Your task to perform on an android device: turn on translation in the chrome app Image 0: 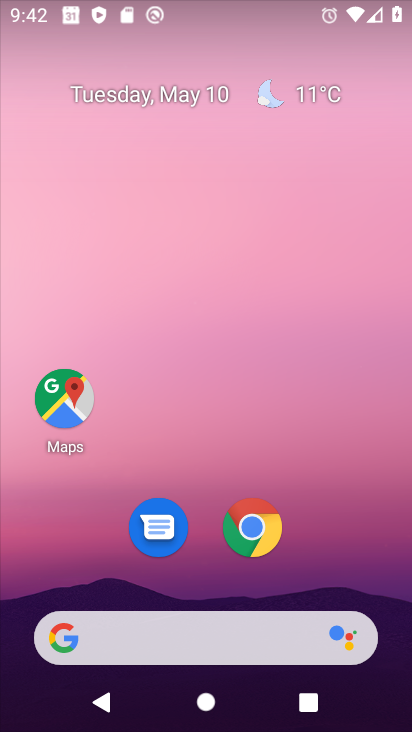
Step 0: click (270, 523)
Your task to perform on an android device: turn on translation in the chrome app Image 1: 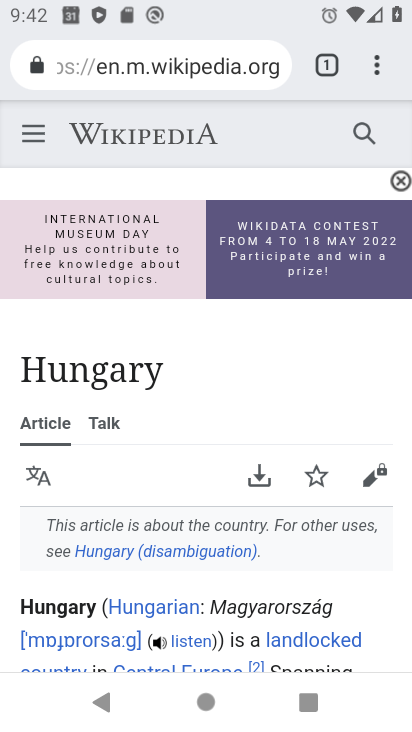
Step 1: click (387, 67)
Your task to perform on an android device: turn on translation in the chrome app Image 2: 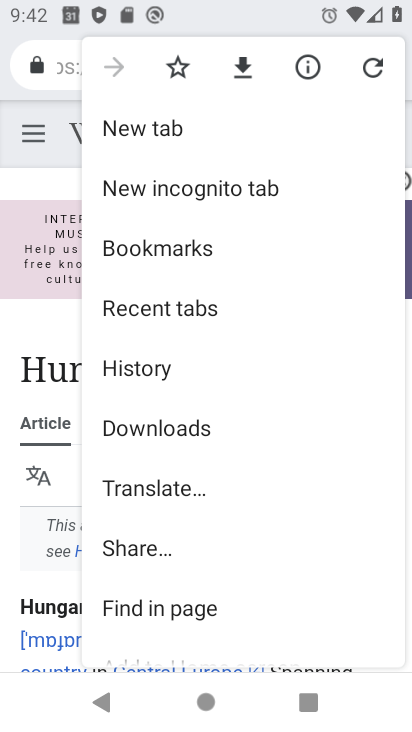
Step 2: drag from (282, 601) to (272, 271)
Your task to perform on an android device: turn on translation in the chrome app Image 3: 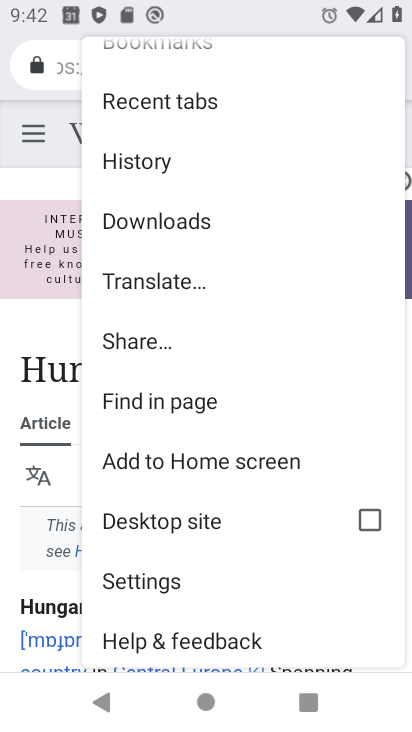
Step 3: click (198, 583)
Your task to perform on an android device: turn on translation in the chrome app Image 4: 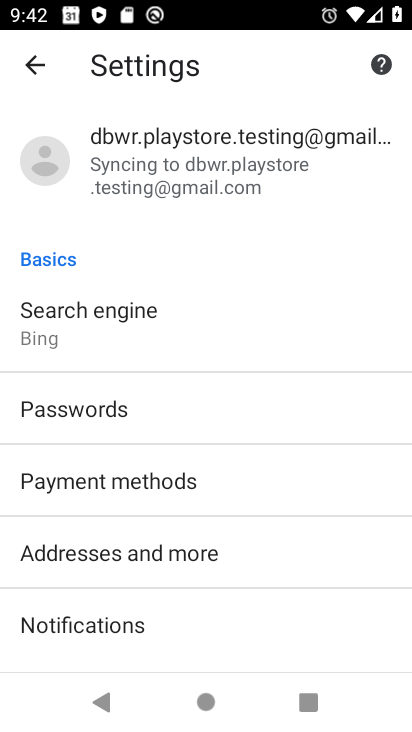
Step 4: drag from (168, 593) to (175, 202)
Your task to perform on an android device: turn on translation in the chrome app Image 5: 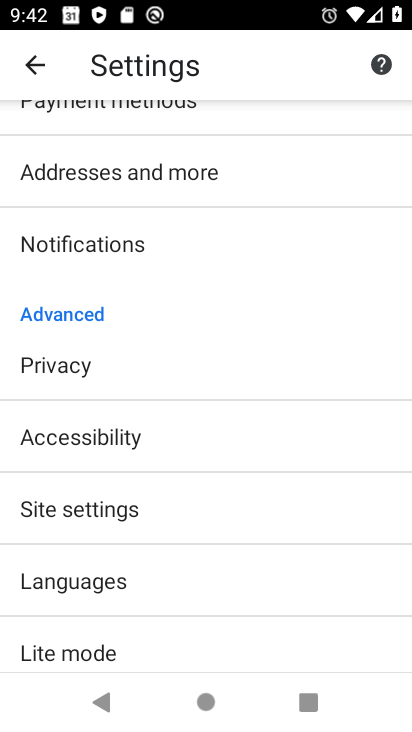
Step 5: click (182, 597)
Your task to perform on an android device: turn on translation in the chrome app Image 6: 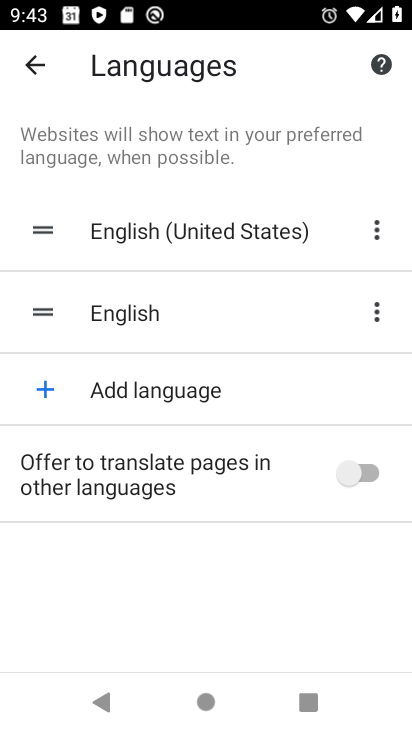
Step 6: click (355, 472)
Your task to perform on an android device: turn on translation in the chrome app Image 7: 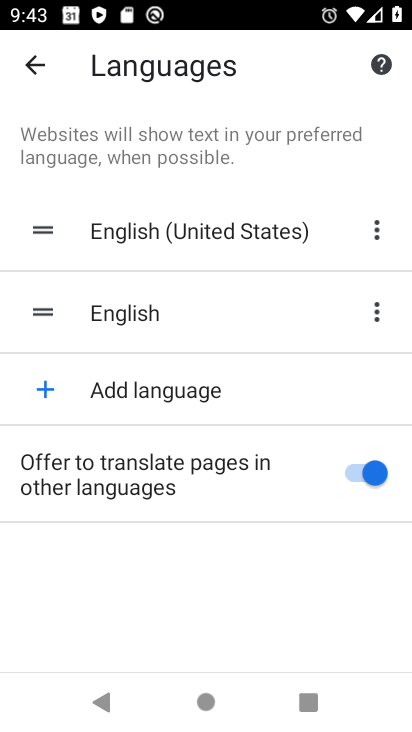
Step 7: task complete